Your task to perform on an android device: toggle improve location accuracy Image 0: 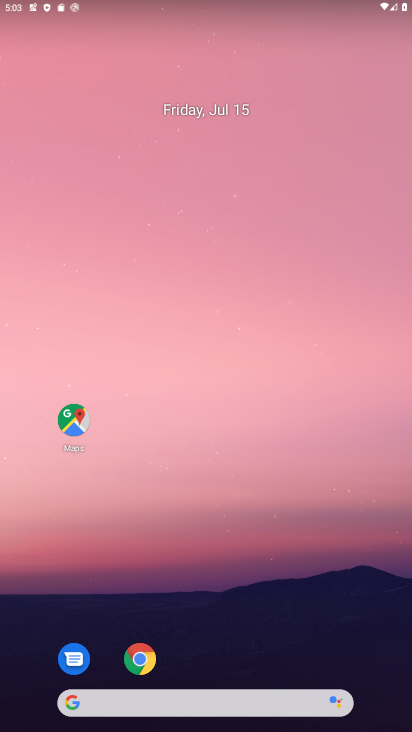
Step 0: drag from (303, 583) to (37, 0)
Your task to perform on an android device: toggle improve location accuracy Image 1: 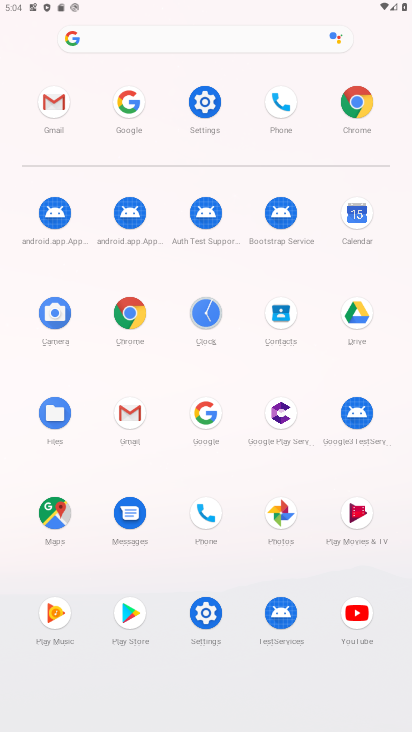
Step 1: click (209, 110)
Your task to perform on an android device: toggle improve location accuracy Image 2: 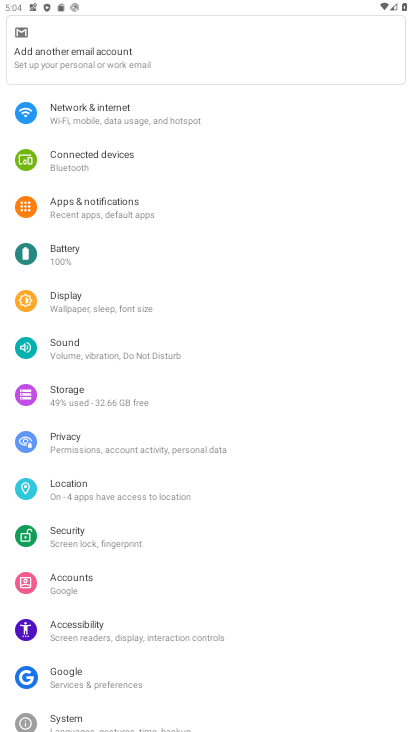
Step 2: click (95, 489)
Your task to perform on an android device: toggle improve location accuracy Image 3: 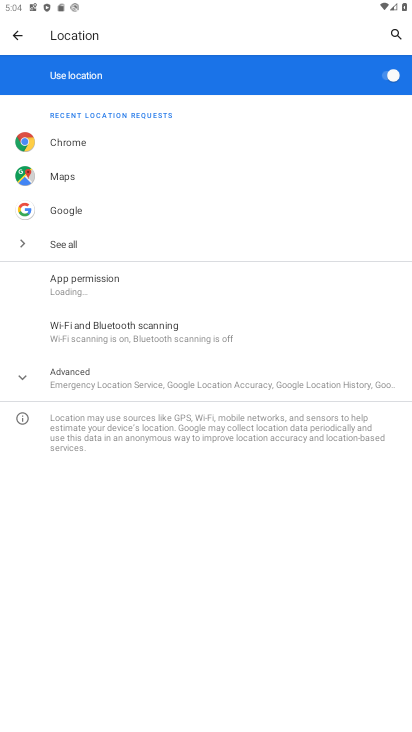
Step 3: click (75, 386)
Your task to perform on an android device: toggle improve location accuracy Image 4: 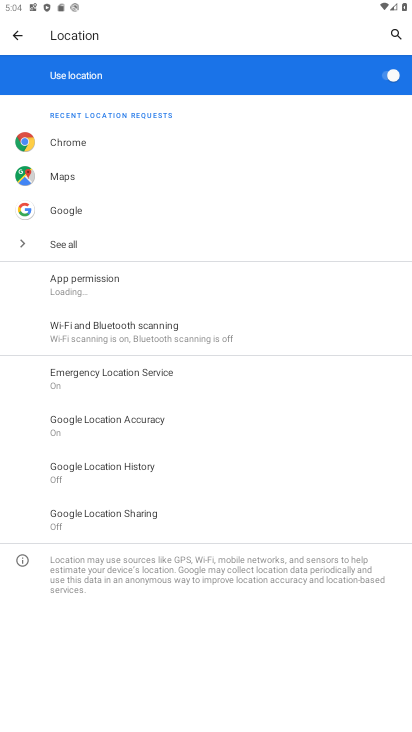
Step 4: click (95, 426)
Your task to perform on an android device: toggle improve location accuracy Image 5: 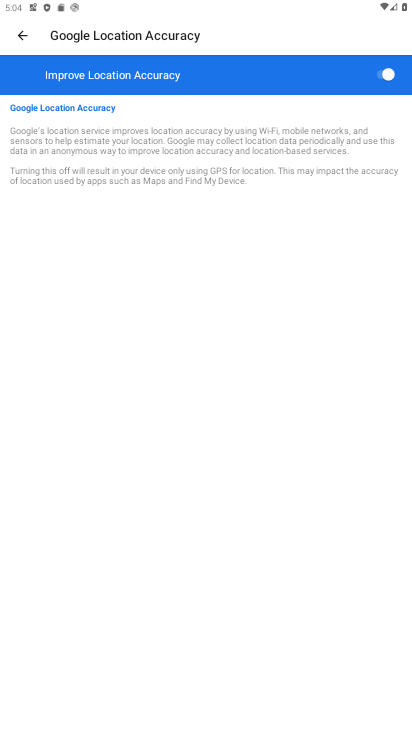
Step 5: click (381, 74)
Your task to perform on an android device: toggle improve location accuracy Image 6: 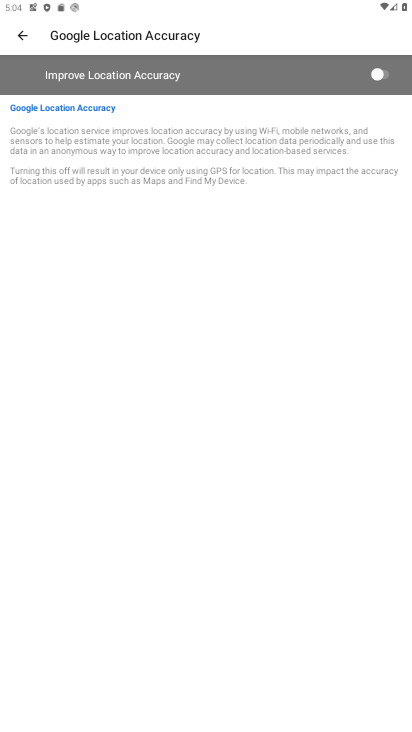
Step 6: task complete